Your task to perform on an android device: Go to internet settings Image 0: 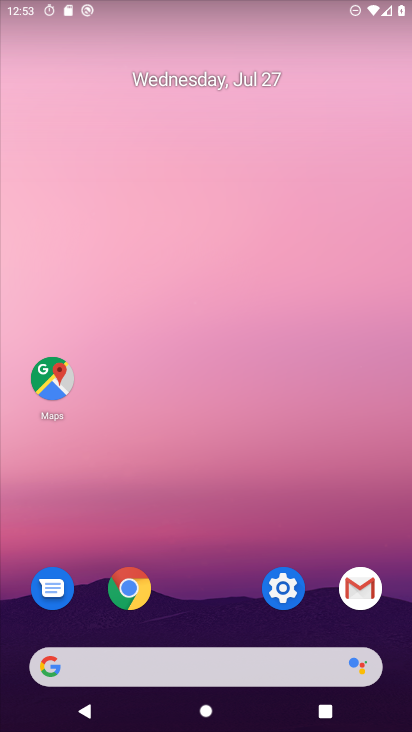
Step 0: click (287, 596)
Your task to perform on an android device: Go to internet settings Image 1: 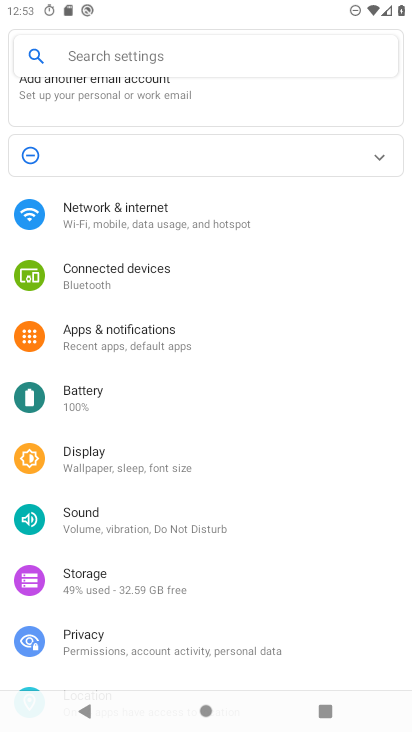
Step 1: click (159, 221)
Your task to perform on an android device: Go to internet settings Image 2: 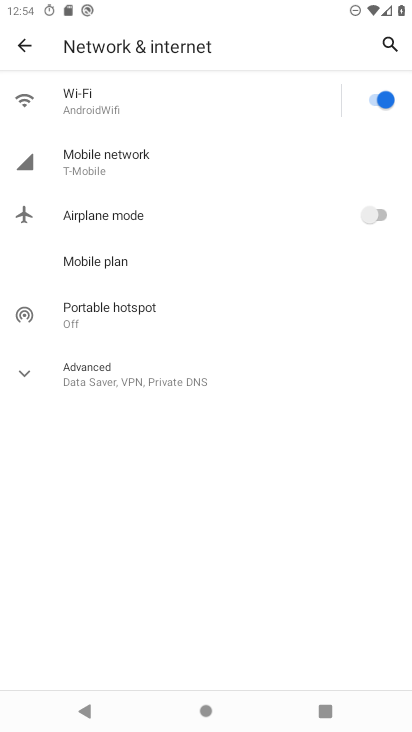
Step 2: task complete